Your task to perform on an android device: Open the calendar and show me this week's events Image 0: 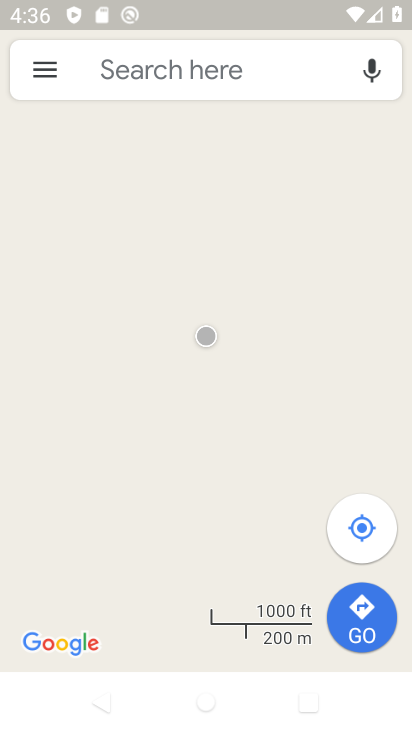
Step 0: press home button
Your task to perform on an android device: Open the calendar and show me this week's events Image 1: 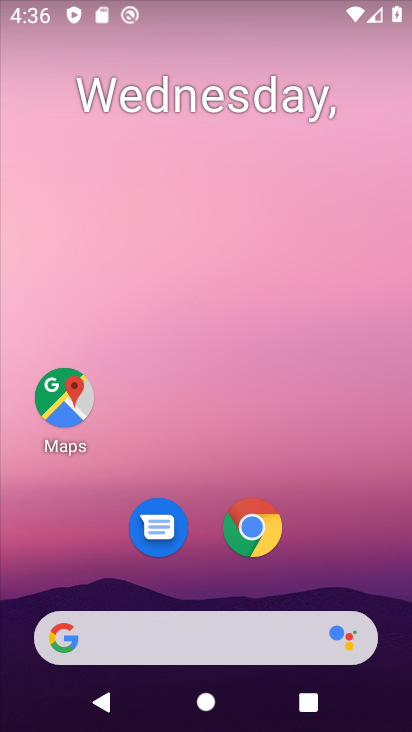
Step 1: drag from (217, 626) to (225, 313)
Your task to perform on an android device: Open the calendar and show me this week's events Image 2: 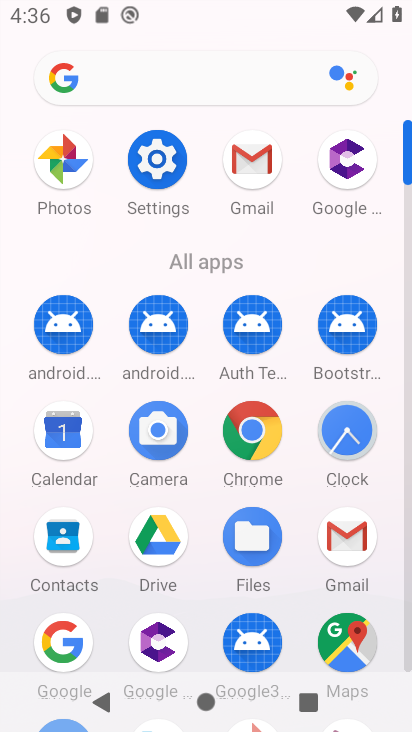
Step 2: click (78, 468)
Your task to perform on an android device: Open the calendar and show me this week's events Image 3: 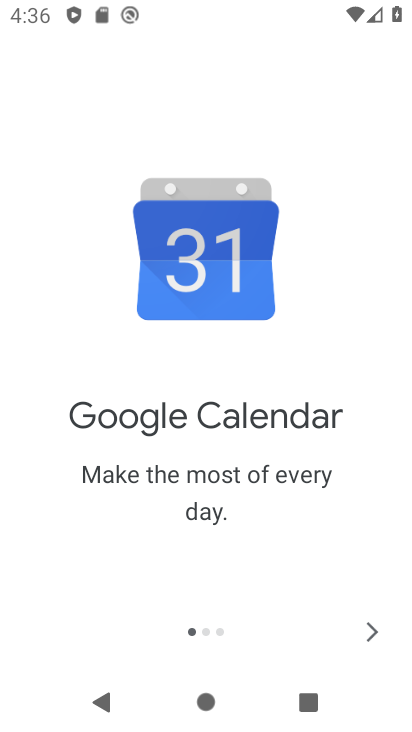
Step 3: click (381, 634)
Your task to perform on an android device: Open the calendar and show me this week's events Image 4: 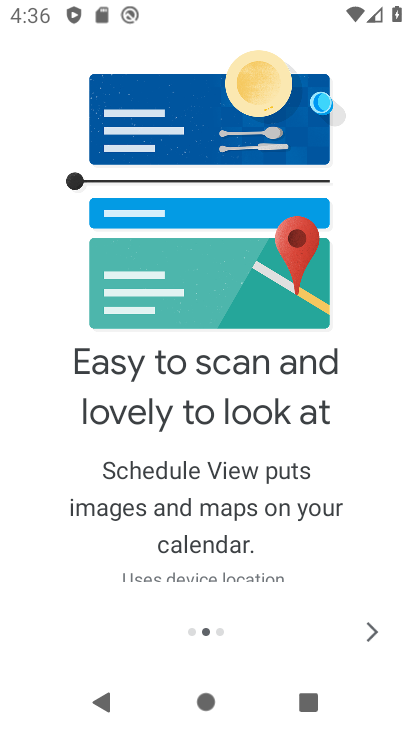
Step 4: click (373, 631)
Your task to perform on an android device: Open the calendar and show me this week's events Image 5: 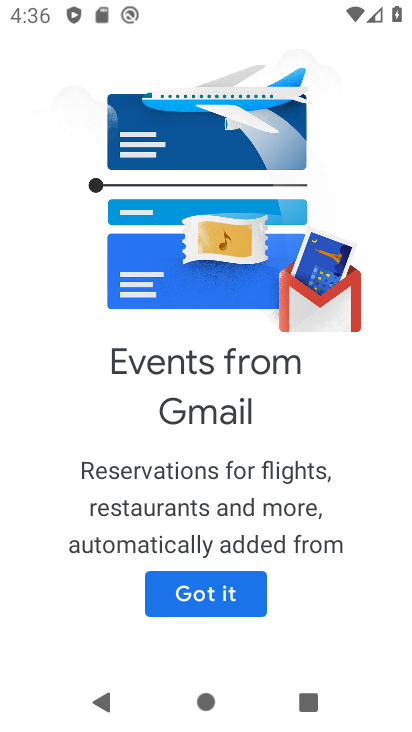
Step 5: click (186, 593)
Your task to perform on an android device: Open the calendar and show me this week's events Image 6: 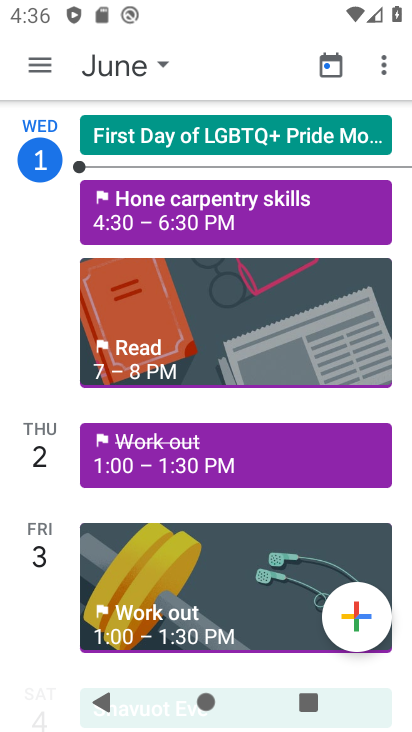
Step 6: task complete